Your task to perform on an android device: find which apps use the phone's location Image 0: 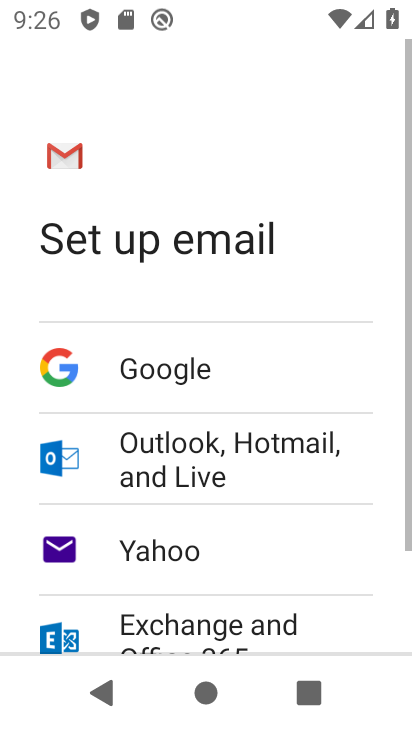
Step 0: press home button
Your task to perform on an android device: find which apps use the phone's location Image 1: 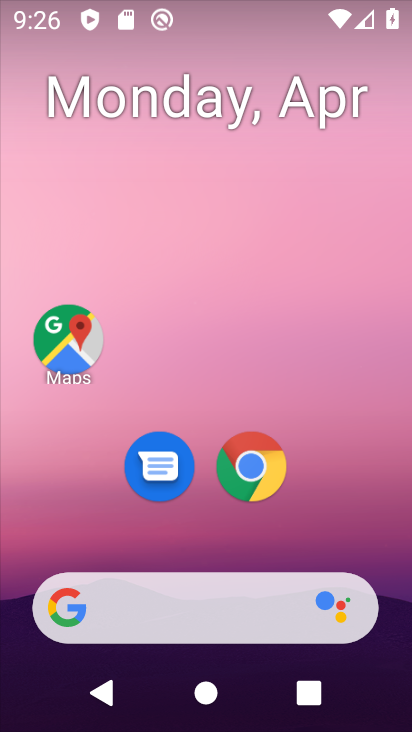
Step 1: drag from (196, 557) to (261, 87)
Your task to perform on an android device: find which apps use the phone's location Image 2: 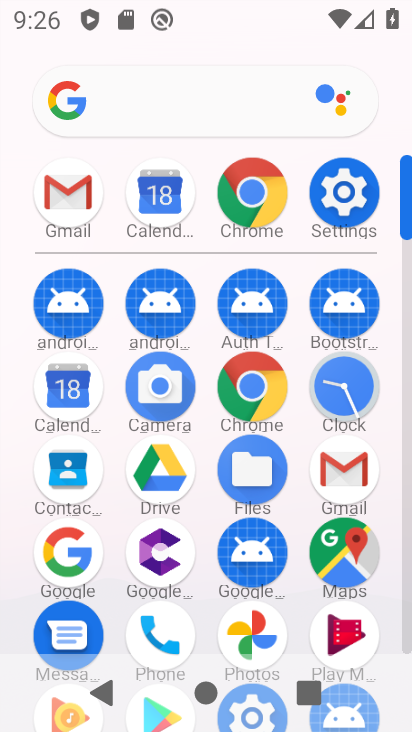
Step 2: click (353, 221)
Your task to perform on an android device: find which apps use the phone's location Image 3: 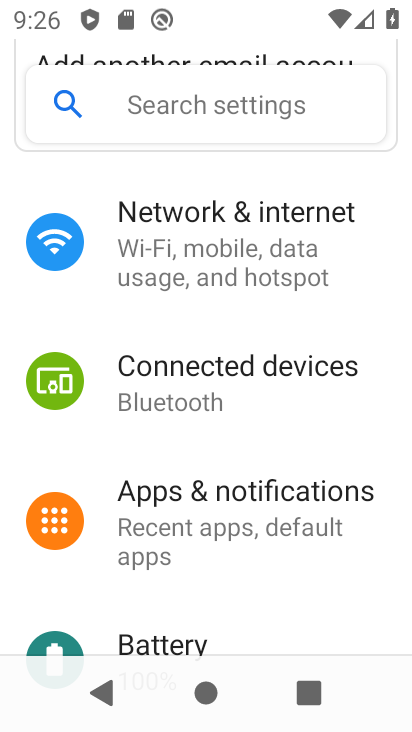
Step 3: drag from (229, 402) to (266, 318)
Your task to perform on an android device: find which apps use the phone's location Image 4: 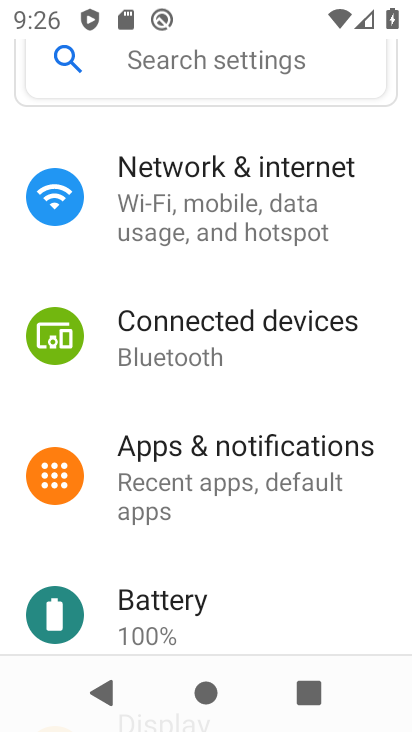
Step 4: drag from (229, 500) to (283, 361)
Your task to perform on an android device: find which apps use the phone's location Image 5: 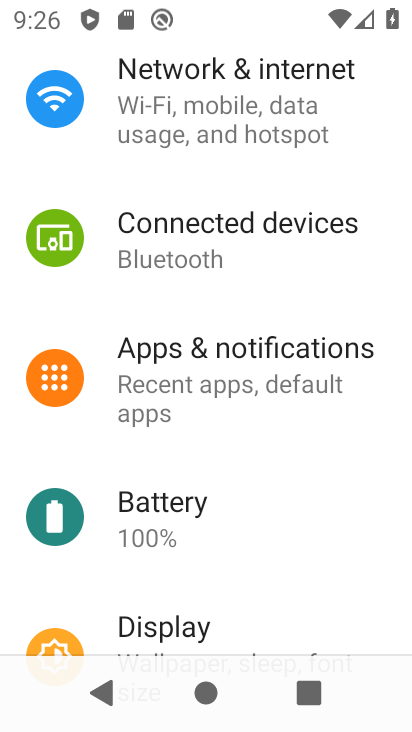
Step 5: drag from (234, 489) to (276, 329)
Your task to perform on an android device: find which apps use the phone's location Image 6: 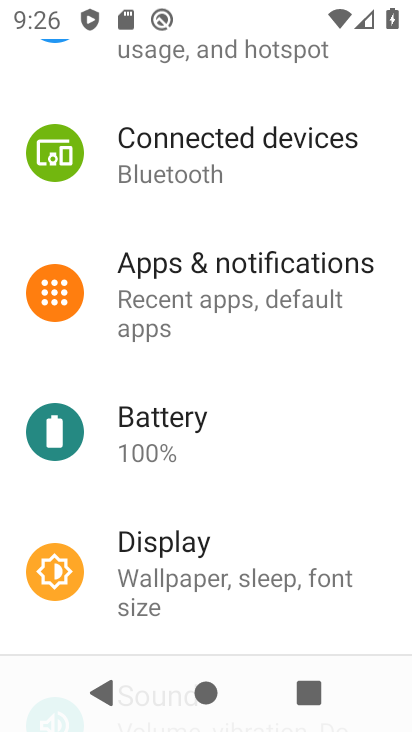
Step 6: drag from (243, 444) to (269, 337)
Your task to perform on an android device: find which apps use the phone's location Image 7: 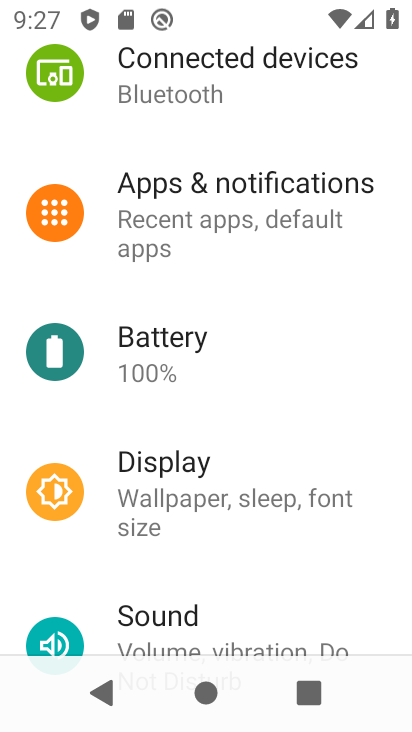
Step 7: drag from (253, 429) to (289, 335)
Your task to perform on an android device: find which apps use the phone's location Image 8: 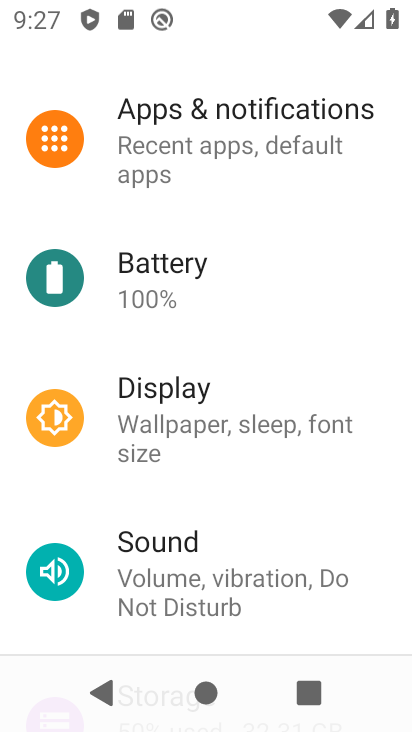
Step 8: drag from (239, 475) to (288, 362)
Your task to perform on an android device: find which apps use the phone's location Image 9: 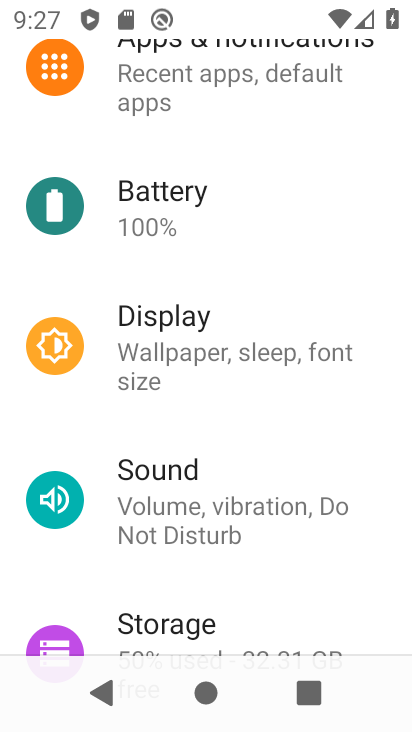
Step 9: drag from (239, 467) to (298, 357)
Your task to perform on an android device: find which apps use the phone's location Image 10: 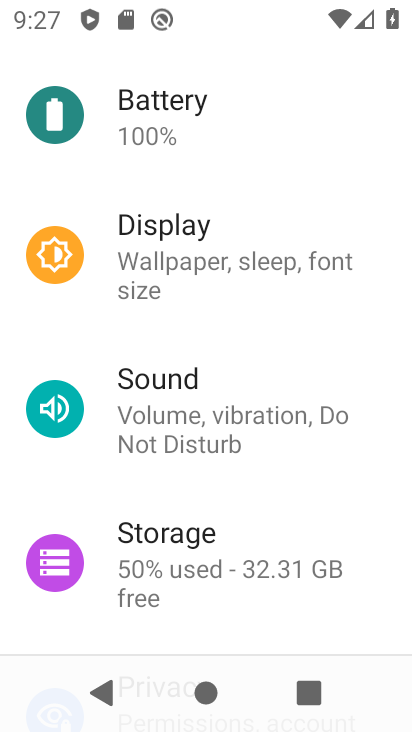
Step 10: drag from (253, 473) to (313, 363)
Your task to perform on an android device: find which apps use the phone's location Image 11: 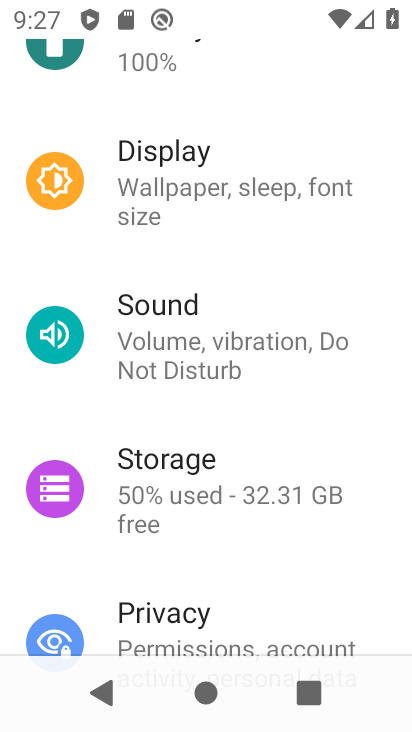
Step 11: drag from (236, 514) to (311, 388)
Your task to perform on an android device: find which apps use the phone's location Image 12: 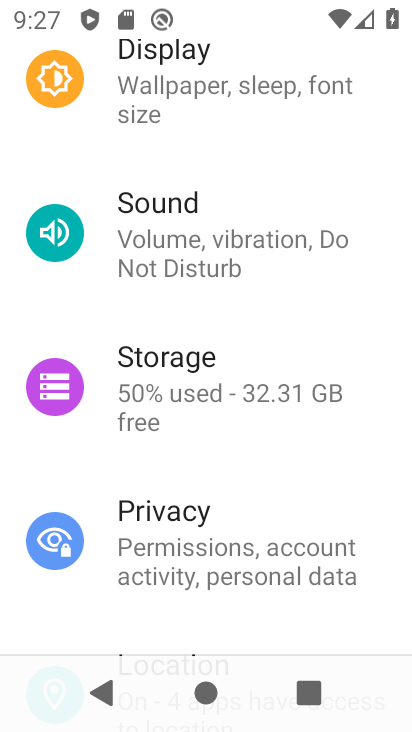
Step 12: drag from (259, 489) to (325, 363)
Your task to perform on an android device: find which apps use the phone's location Image 13: 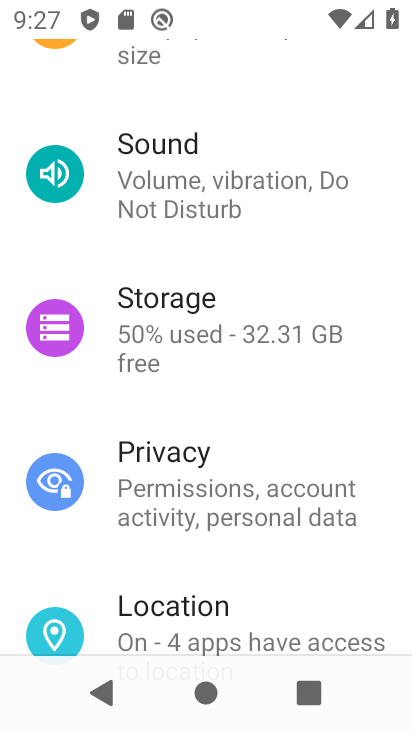
Step 13: drag from (234, 524) to (305, 373)
Your task to perform on an android device: find which apps use the phone's location Image 14: 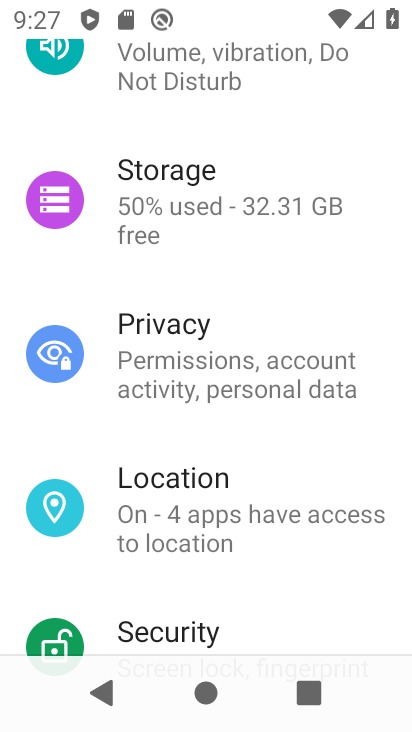
Step 14: click (202, 484)
Your task to perform on an android device: find which apps use the phone's location Image 15: 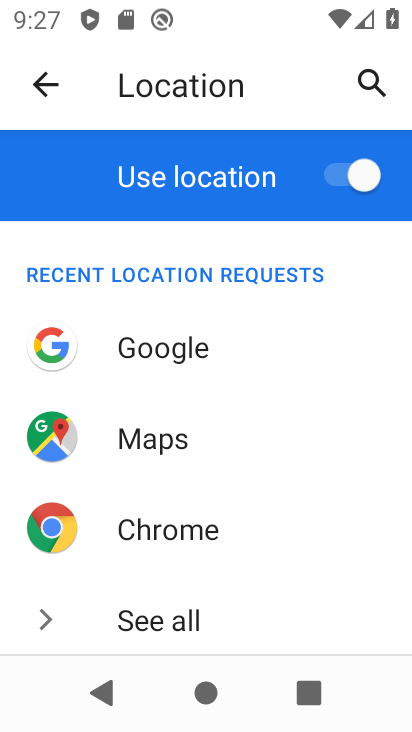
Step 15: drag from (242, 494) to (291, 421)
Your task to perform on an android device: find which apps use the phone's location Image 16: 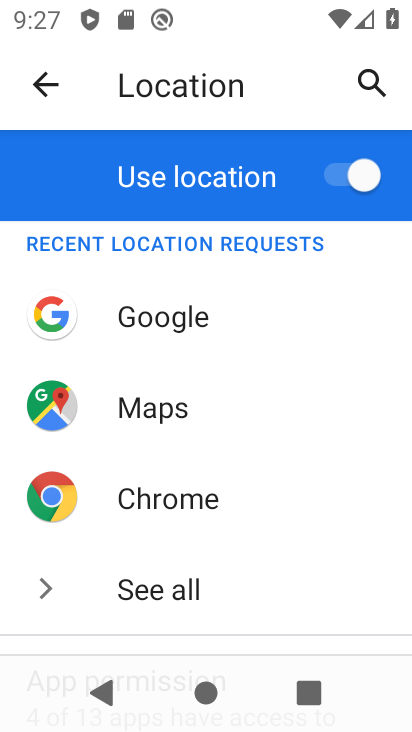
Step 16: drag from (242, 538) to (281, 400)
Your task to perform on an android device: find which apps use the phone's location Image 17: 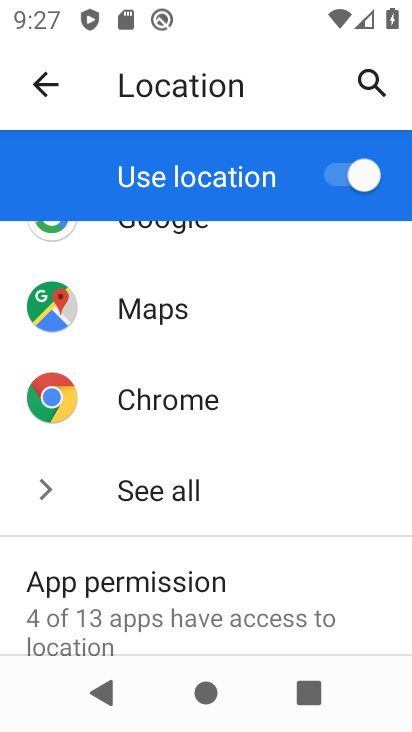
Step 17: drag from (253, 532) to (322, 371)
Your task to perform on an android device: find which apps use the phone's location Image 18: 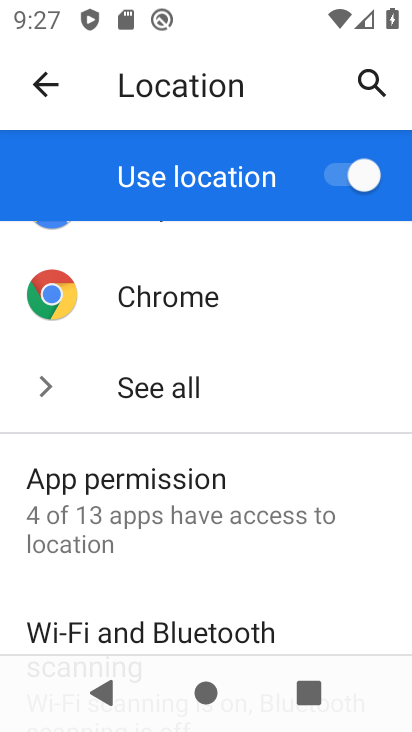
Step 18: click (218, 510)
Your task to perform on an android device: find which apps use the phone's location Image 19: 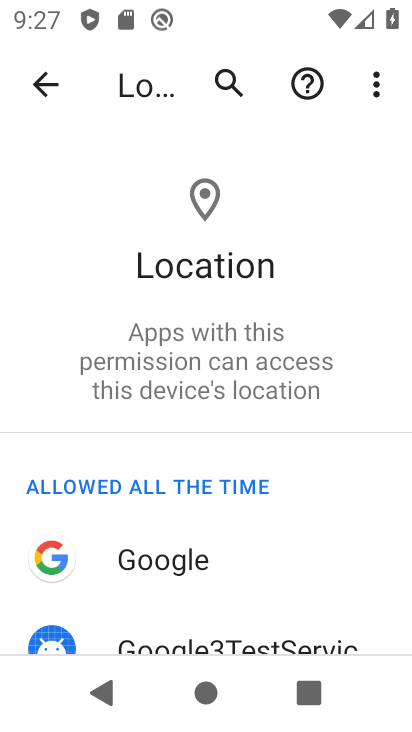
Step 19: drag from (218, 541) to (302, 332)
Your task to perform on an android device: find which apps use the phone's location Image 20: 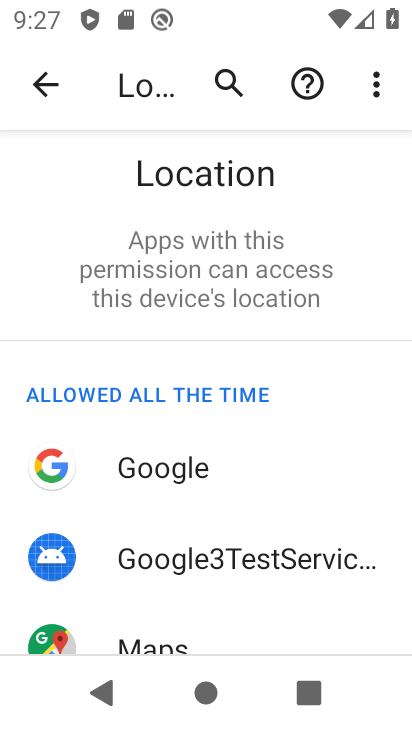
Step 20: drag from (199, 579) to (282, 404)
Your task to perform on an android device: find which apps use the phone's location Image 21: 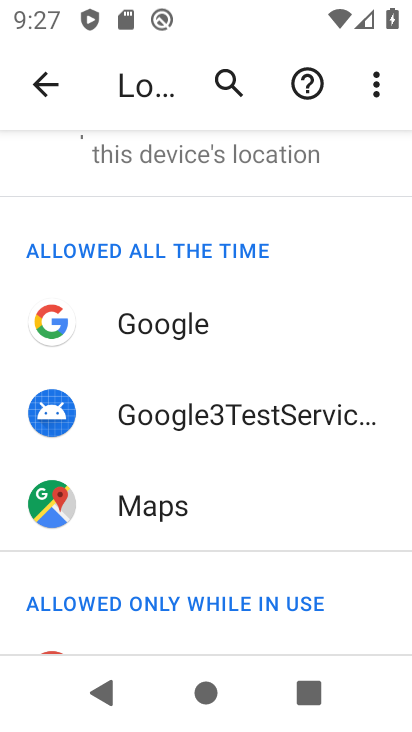
Step 21: click (171, 497)
Your task to perform on an android device: find which apps use the phone's location Image 22: 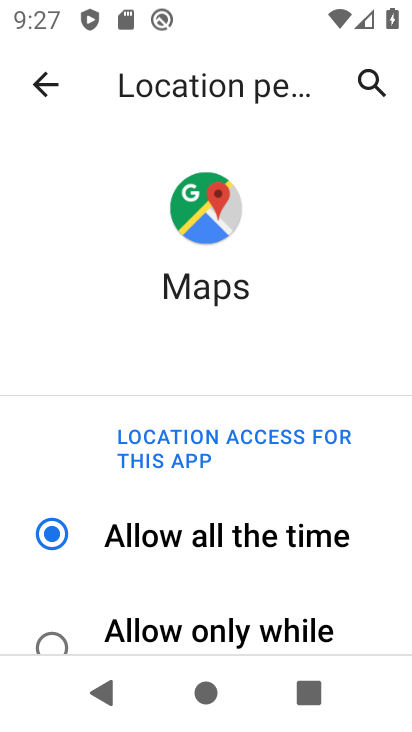
Step 22: task complete